Your task to perform on an android device: star an email in the gmail app Image 0: 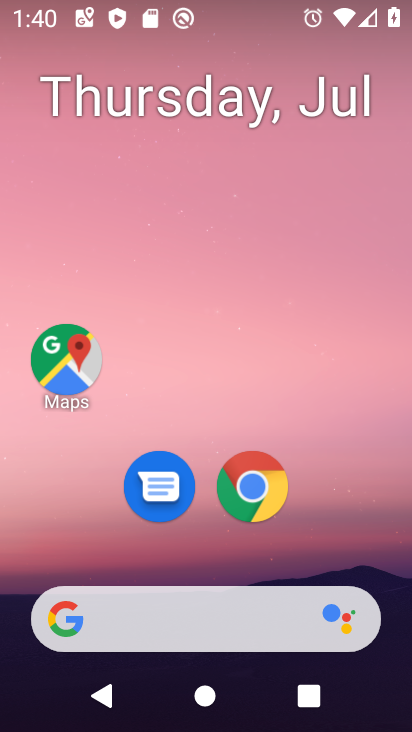
Step 0: drag from (199, 544) to (223, 43)
Your task to perform on an android device: star an email in the gmail app Image 1: 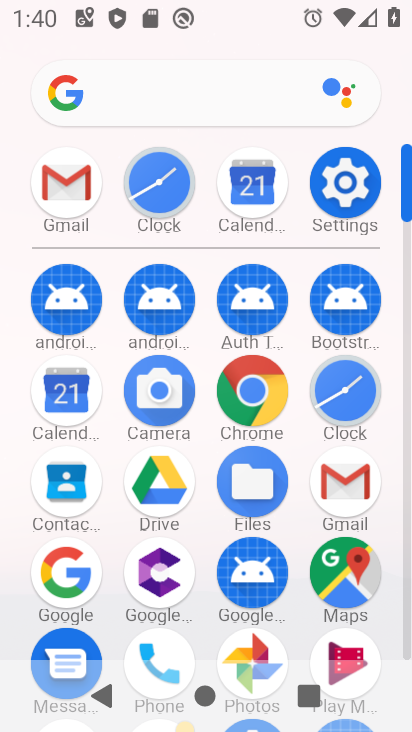
Step 1: click (55, 186)
Your task to perform on an android device: star an email in the gmail app Image 2: 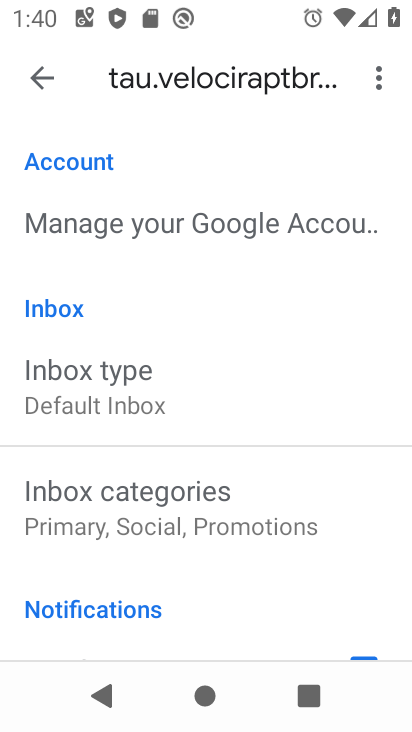
Step 2: press back button
Your task to perform on an android device: star an email in the gmail app Image 3: 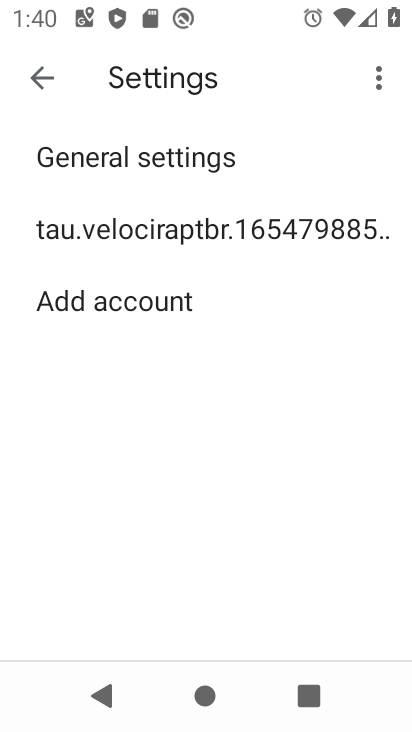
Step 3: press back button
Your task to perform on an android device: star an email in the gmail app Image 4: 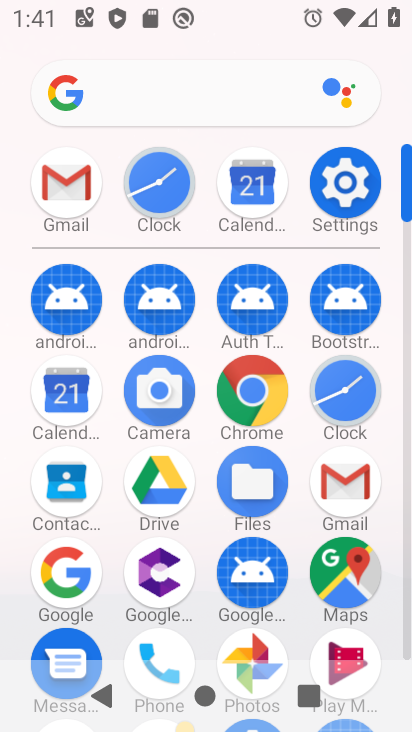
Step 4: click (69, 206)
Your task to perform on an android device: star an email in the gmail app Image 5: 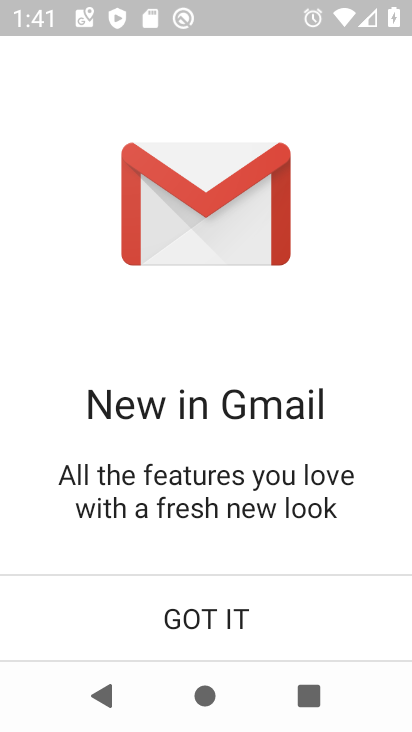
Step 5: click (220, 615)
Your task to perform on an android device: star an email in the gmail app Image 6: 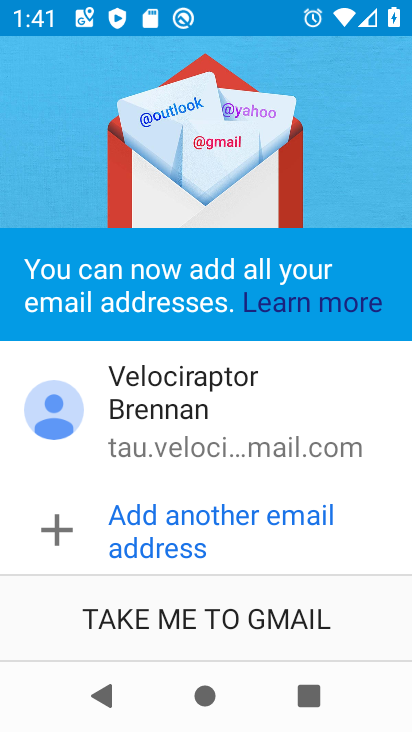
Step 6: click (190, 612)
Your task to perform on an android device: star an email in the gmail app Image 7: 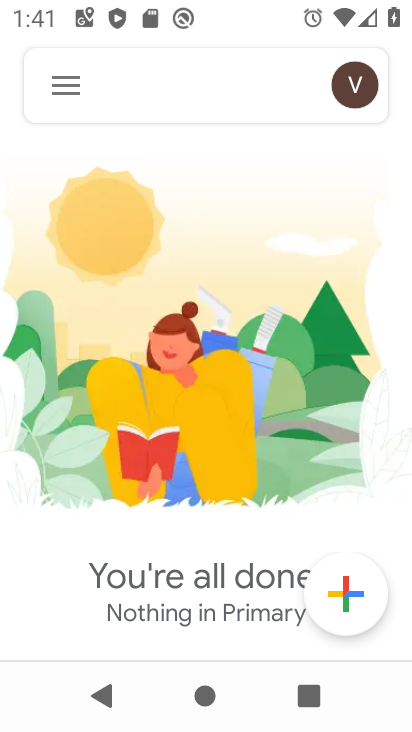
Step 7: click (62, 80)
Your task to perform on an android device: star an email in the gmail app Image 8: 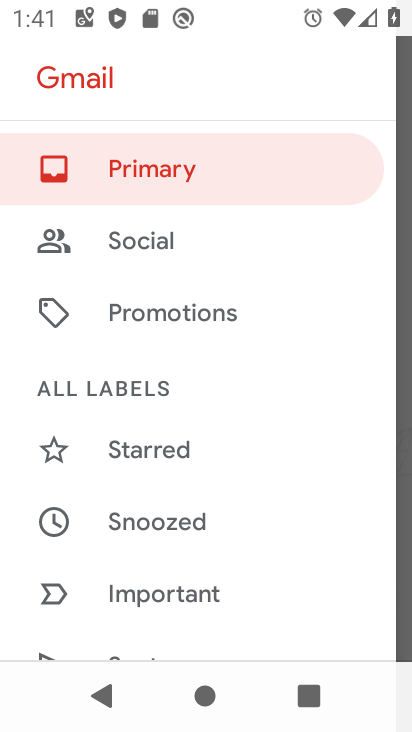
Step 8: drag from (231, 604) to (237, 119)
Your task to perform on an android device: star an email in the gmail app Image 9: 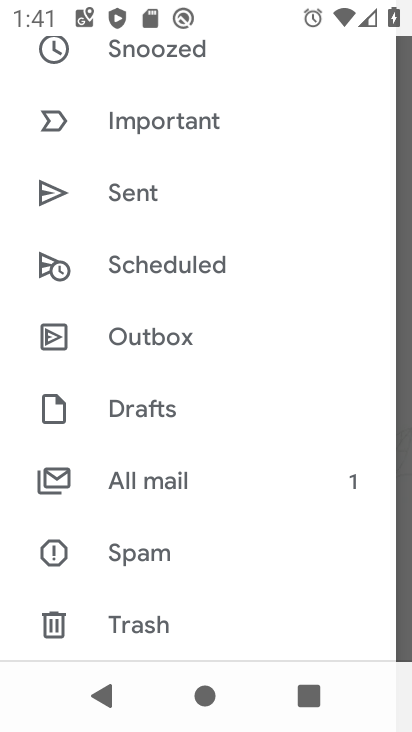
Step 9: click (166, 484)
Your task to perform on an android device: star an email in the gmail app Image 10: 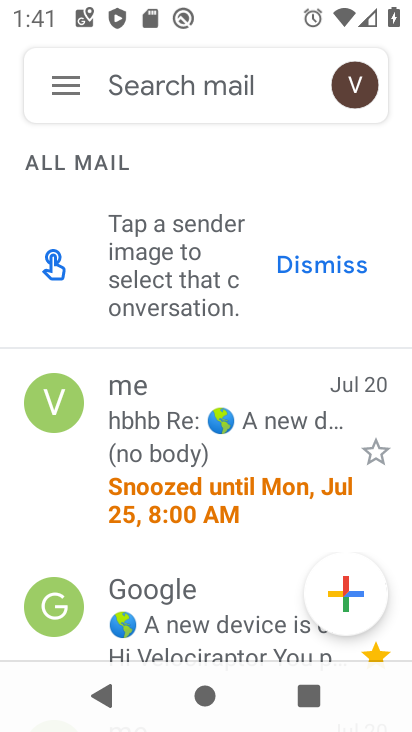
Step 10: click (371, 454)
Your task to perform on an android device: star an email in the gmail app Image 11: 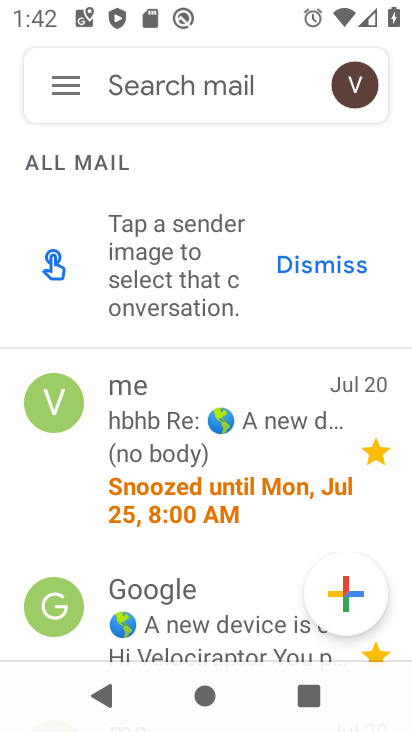
Step 11: task complete